Your task to perform on an android device: Search for top rated pizza restaurants on Maps Image 0: 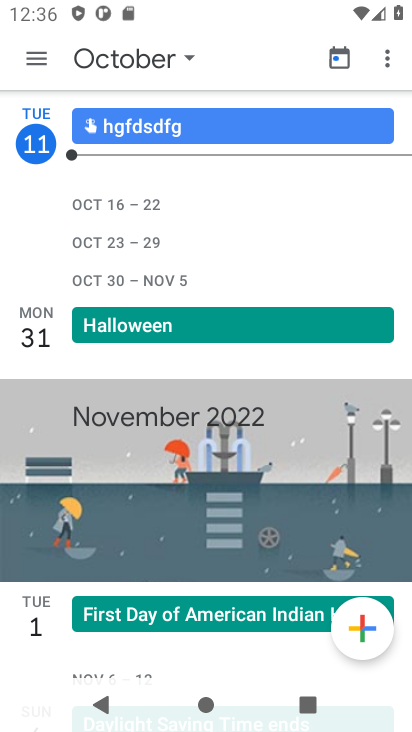
Step 0: click (211, 178)
Your task to perform on an android device: Search for top rated pizza restaurants on Maps Image 1: 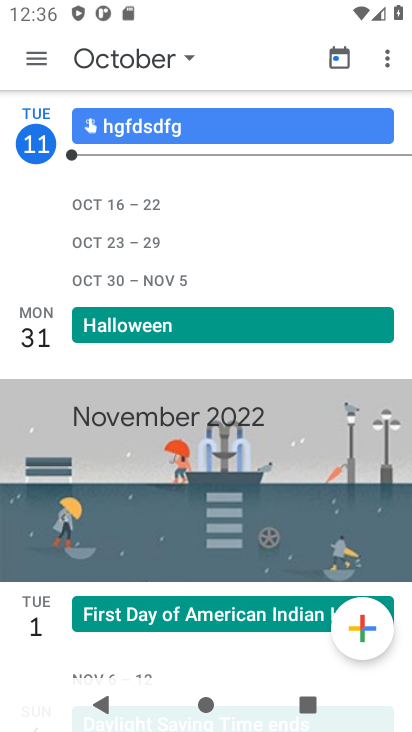
Step 1: press home button
Your task to perform on an android device: Search for top rated pizza restaurants on Maps Image 2: 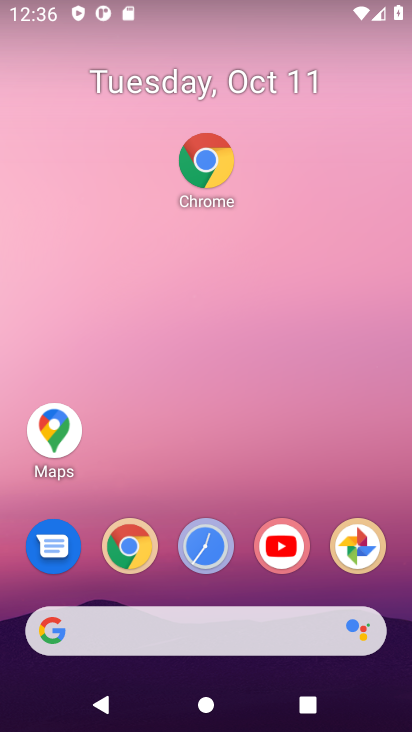
Step 2: click (139, 551)
Your task to perform on an android device: Search for top rated pizza restaurants on Maps Image 3: 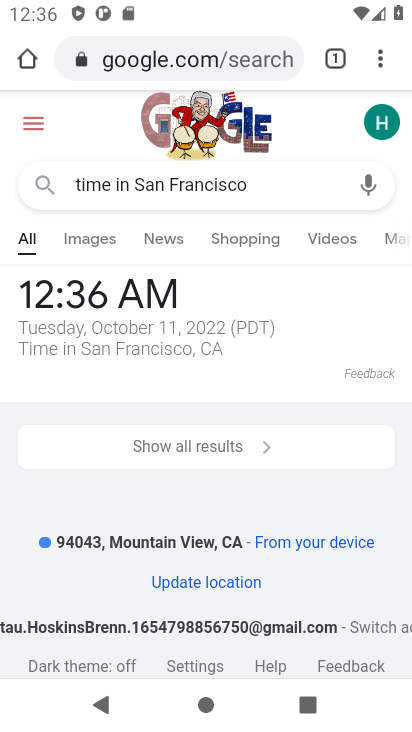
Step 3: press home button
Your task to perform on an android device: Search for top rated pizza restaurants on Maps Image 4: 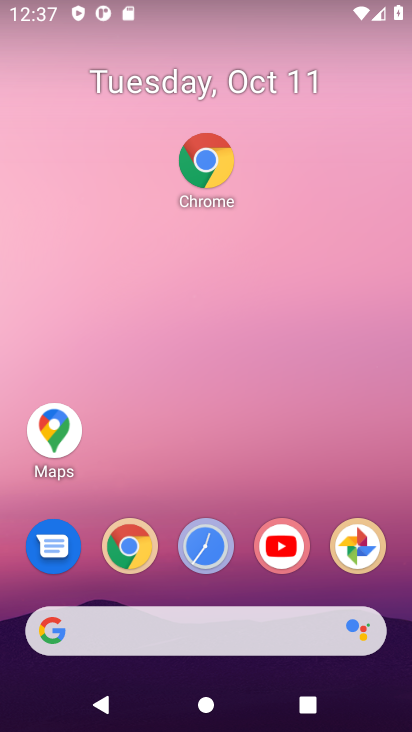
Step 4: drag from (312, 611) to (295, 276)
Your task to perform on an android device: Search for top rated pizza restaurants on Maps Image 5: 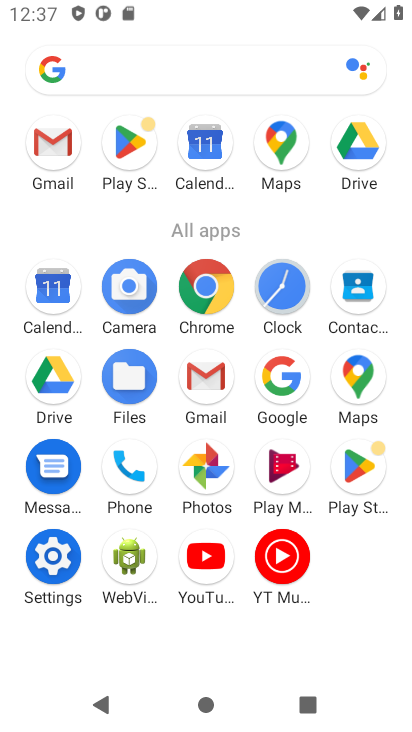
Step 5: click (350, 384)
Your task to perform on an android device: Search for top rated pizza restaurants on Maps Image 6: 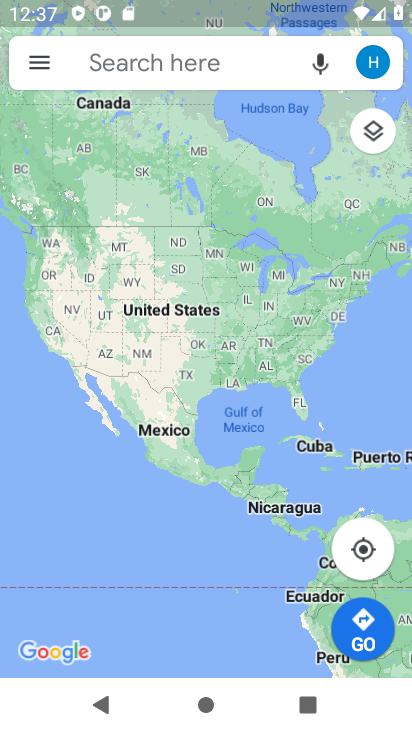
Step 6: click (207, 71)
Your task to perform on an android device: Search for top rated pizza restaurants on Maps Image 7: 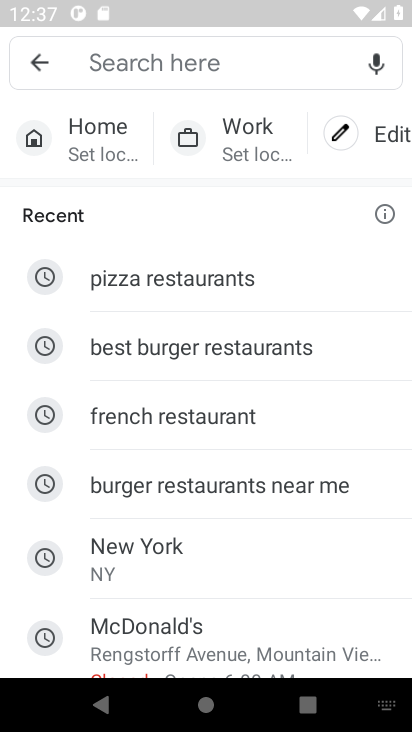
Step 7: type "top rated pizza restaurants"
Your task to perform on an android device: Search for top rated pizza restaurants on Maps Image 8: 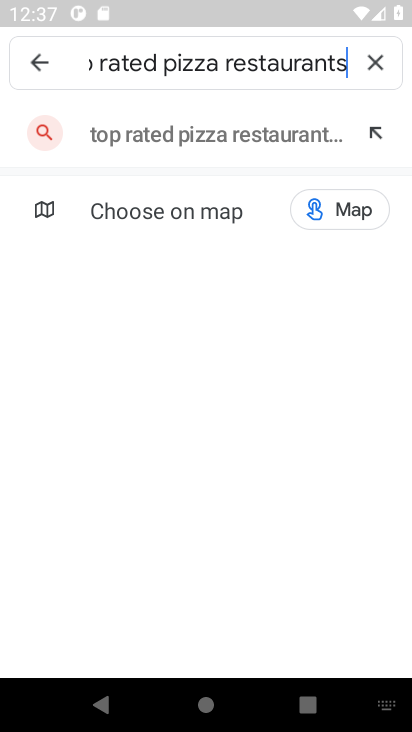
Step 8: press enter
Your task to perform on an android device: Search for top rated pizza restaurants on Maps Image 9: 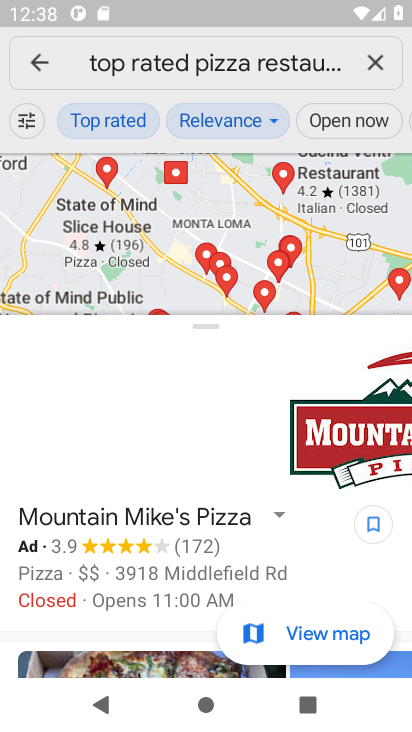
Step 9: task complete